Your task to perform on an android device: Search for the best rated 3d printer on Amazon. Image 0: 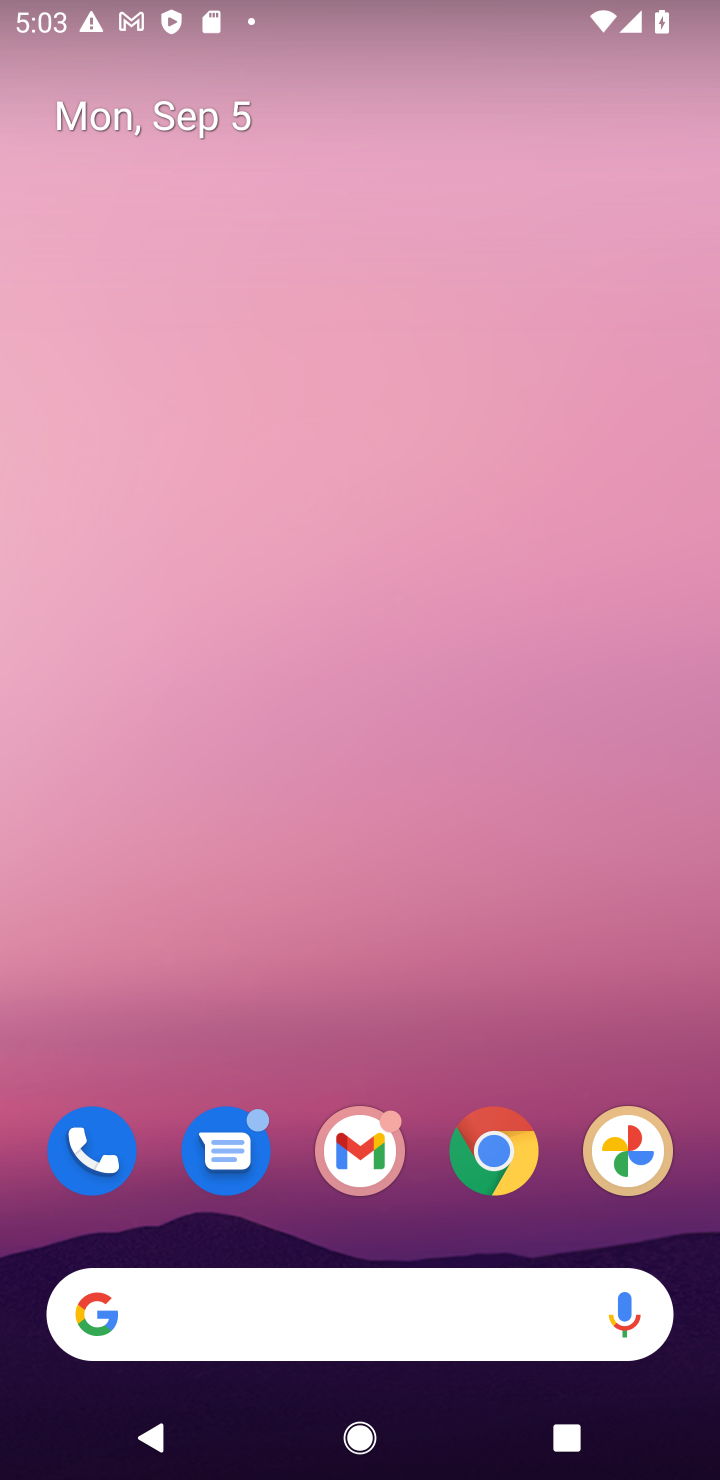
Step 0: drag from (425, 1216) to (537, 158)
Your task to perform on an android device: Search for the best rated 3d printer on Amazon. Image 1: 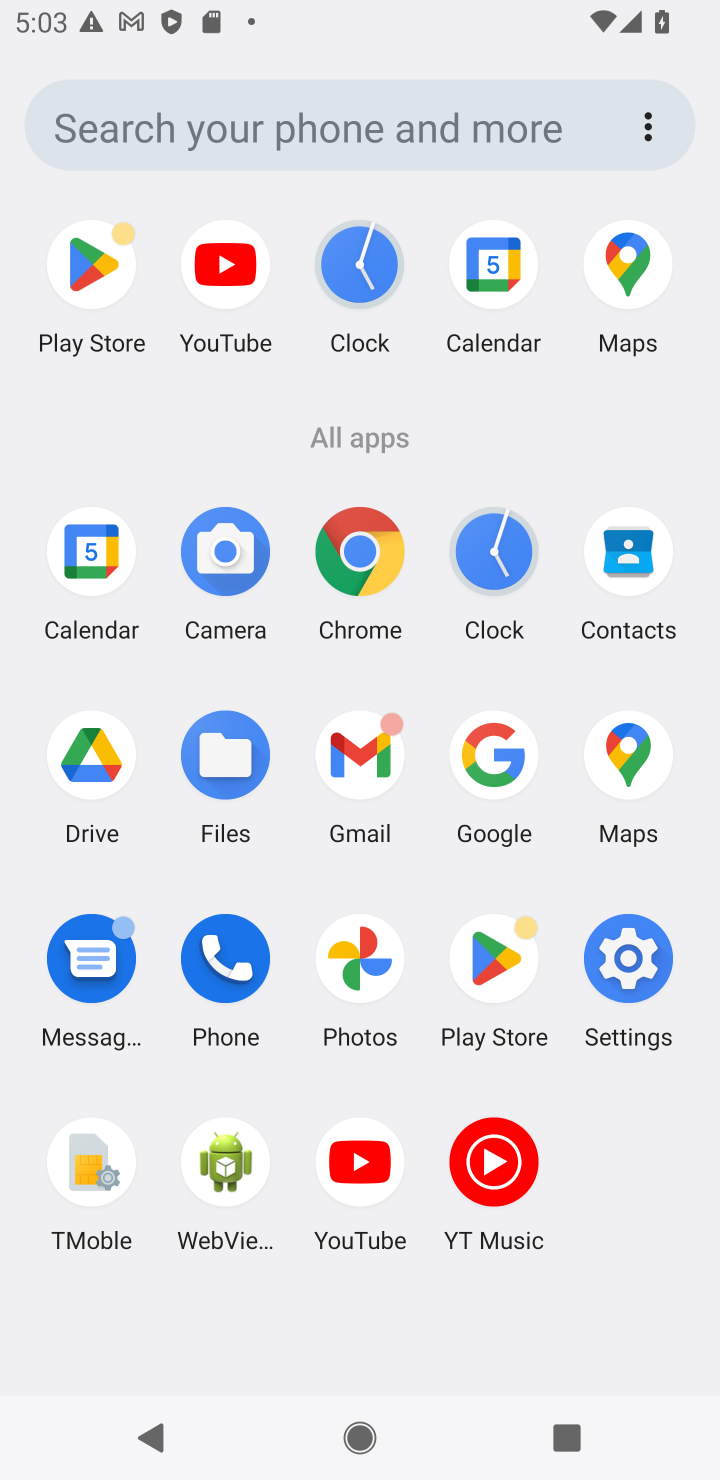
Step 1: click (350, 601)
Your task to perform on an android device: Search for the best rated 3d printer on Amazon. Image 2: 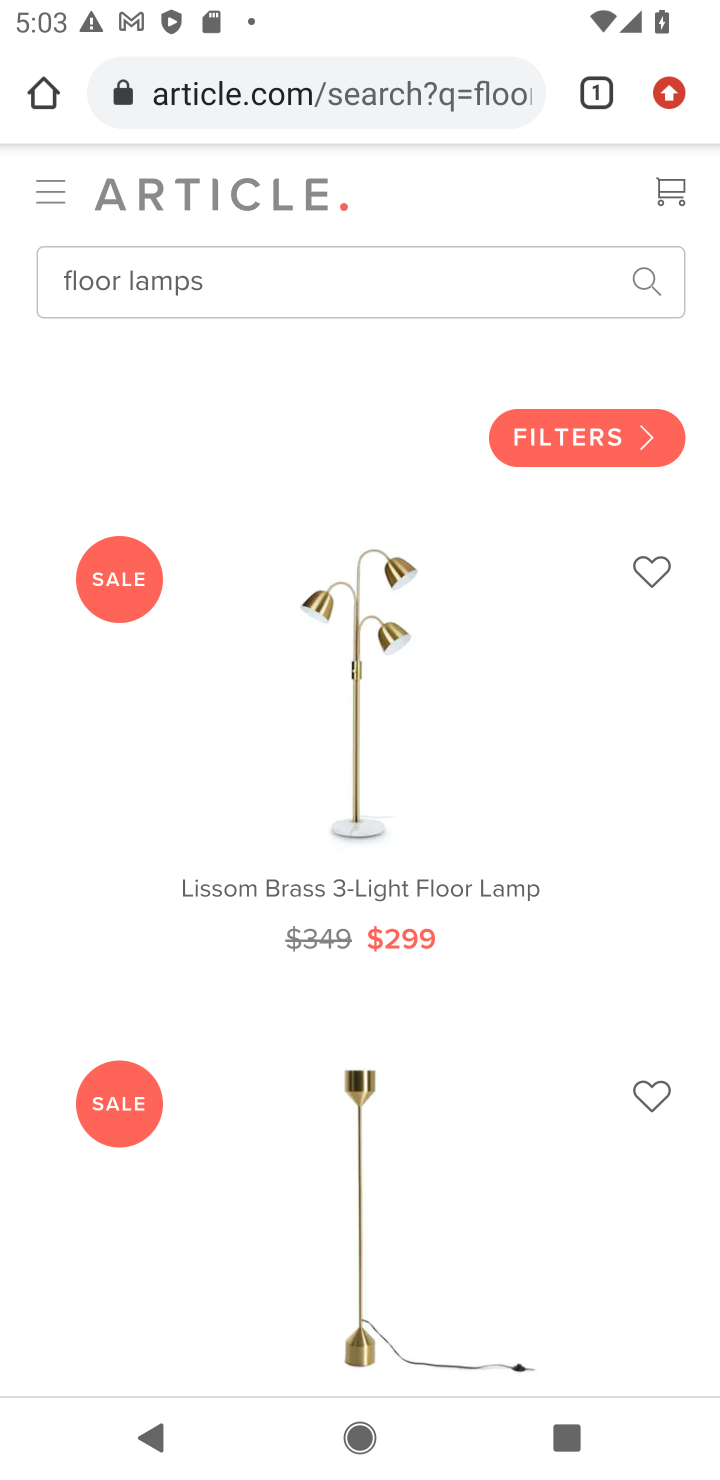
Step 2: click (448, 106)
Your task to perform on an android device: Search for the best rated 3d printer on Amazon. Image 3: 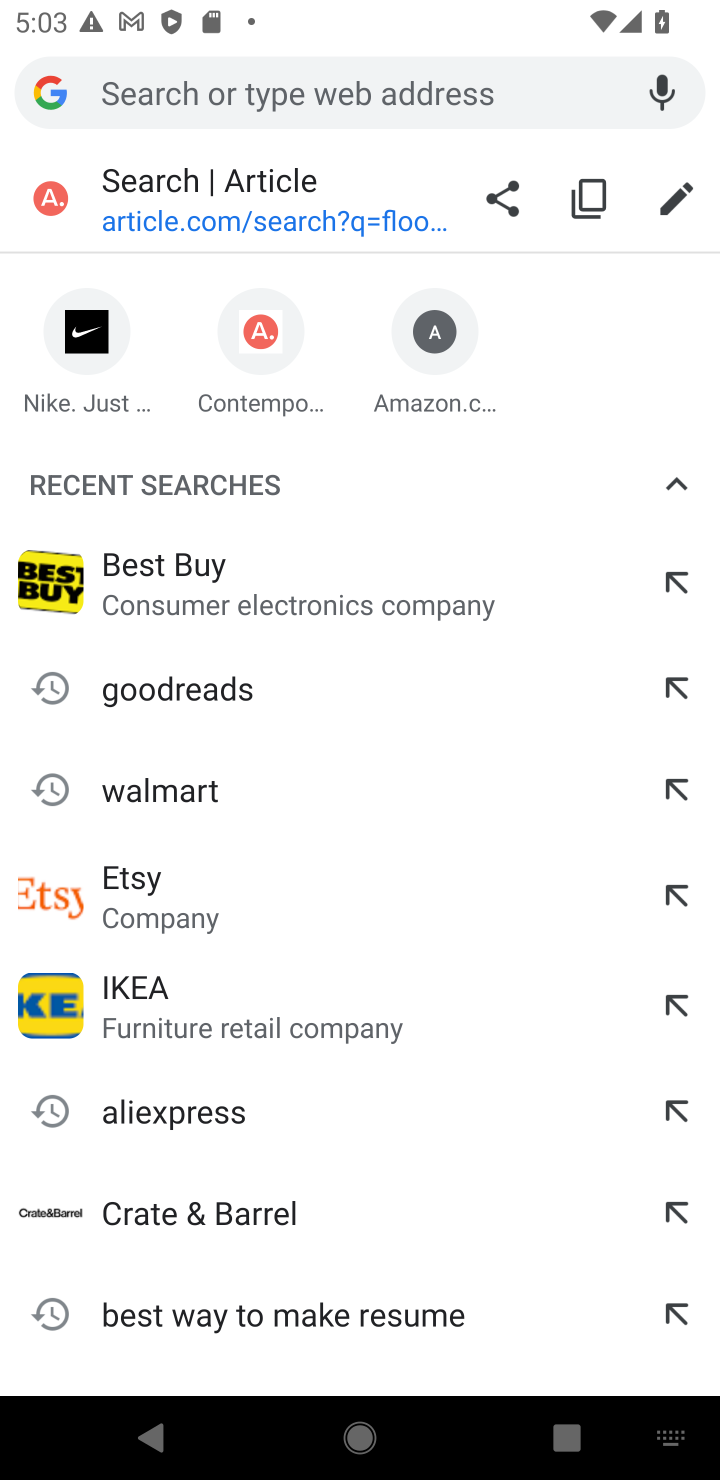
Step 3: type "amazom"
Your task to perform on an android device: Search for the best rated 3d printer on Amazon. Image 4: 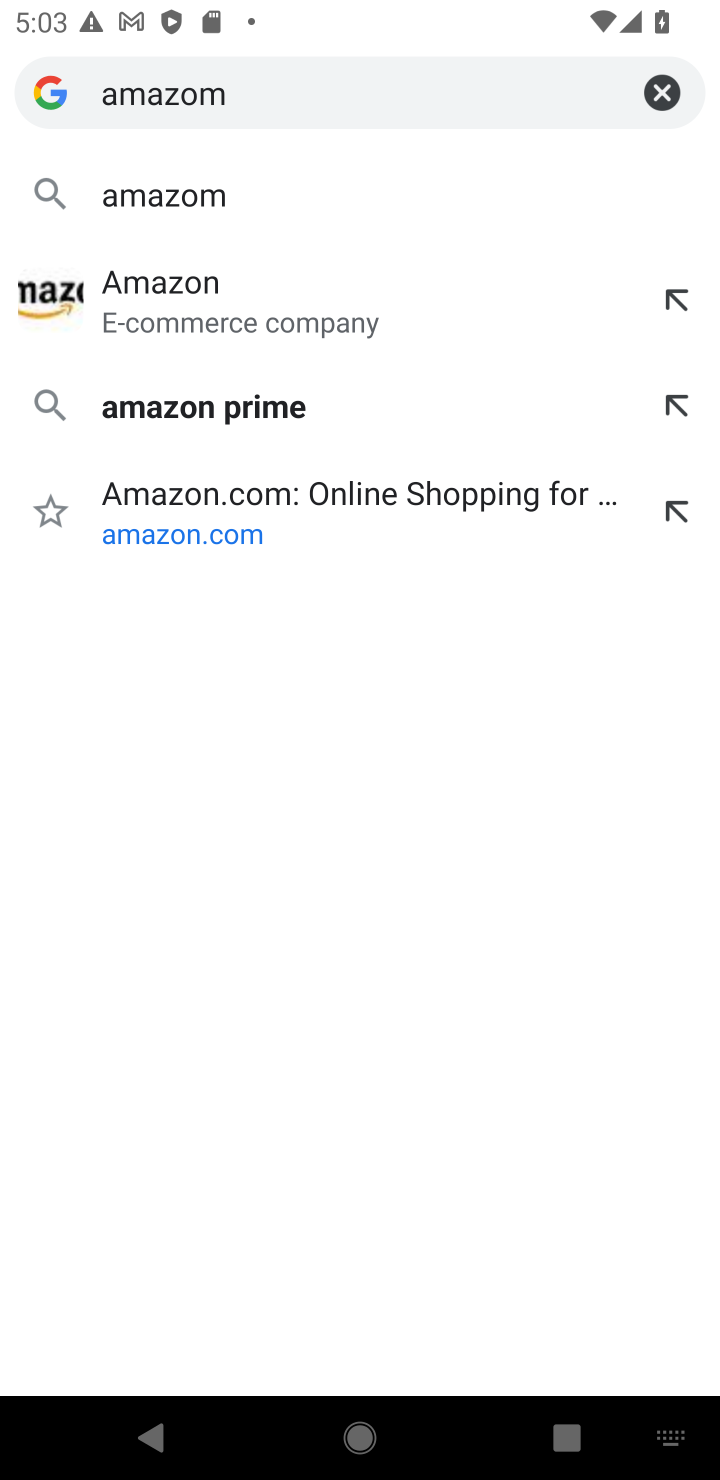
Step 4: click (361, 538)
Your task to perform on an android device: Search for the best rated 3d printer on Amazon. Image 5: 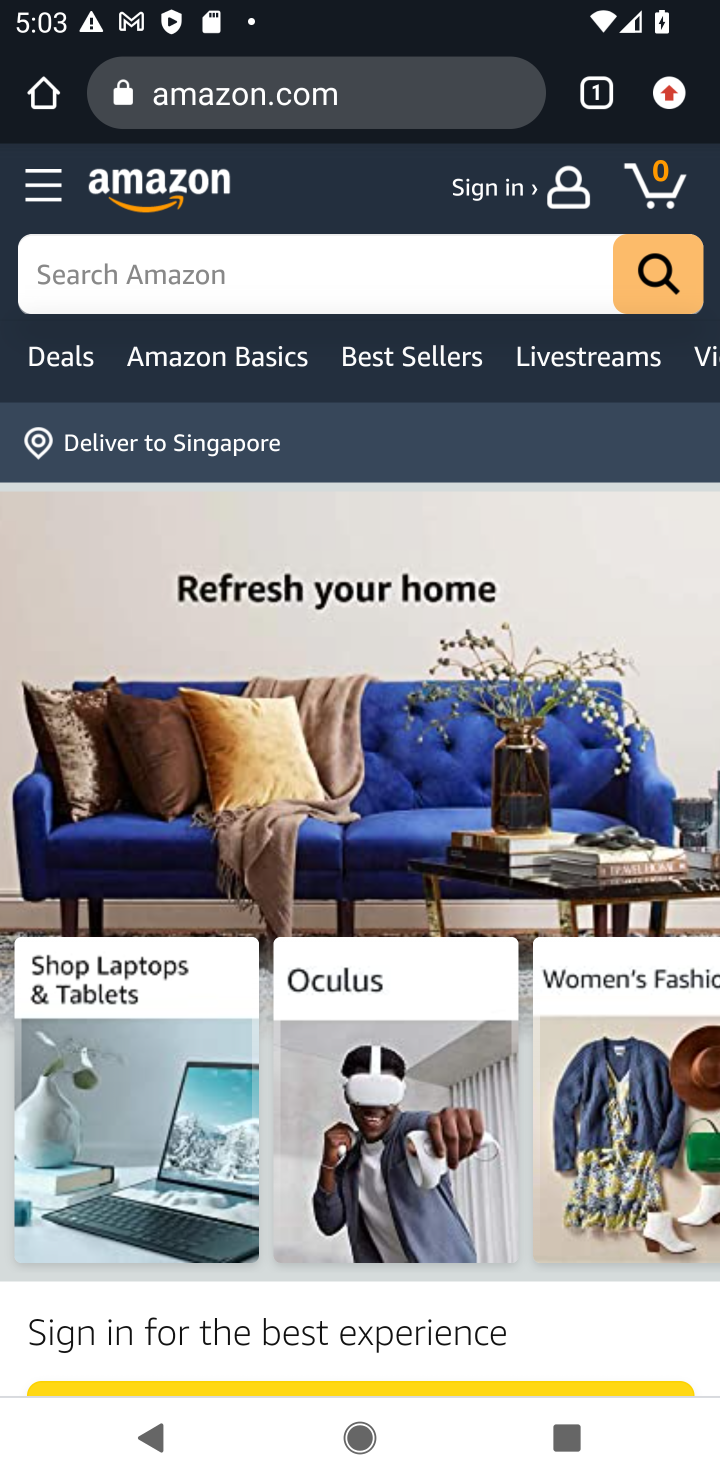
Step 5: click (401, 279)
Your task to perform on an android device: Search for the best rated 3d printer on Amazon. Image 6: 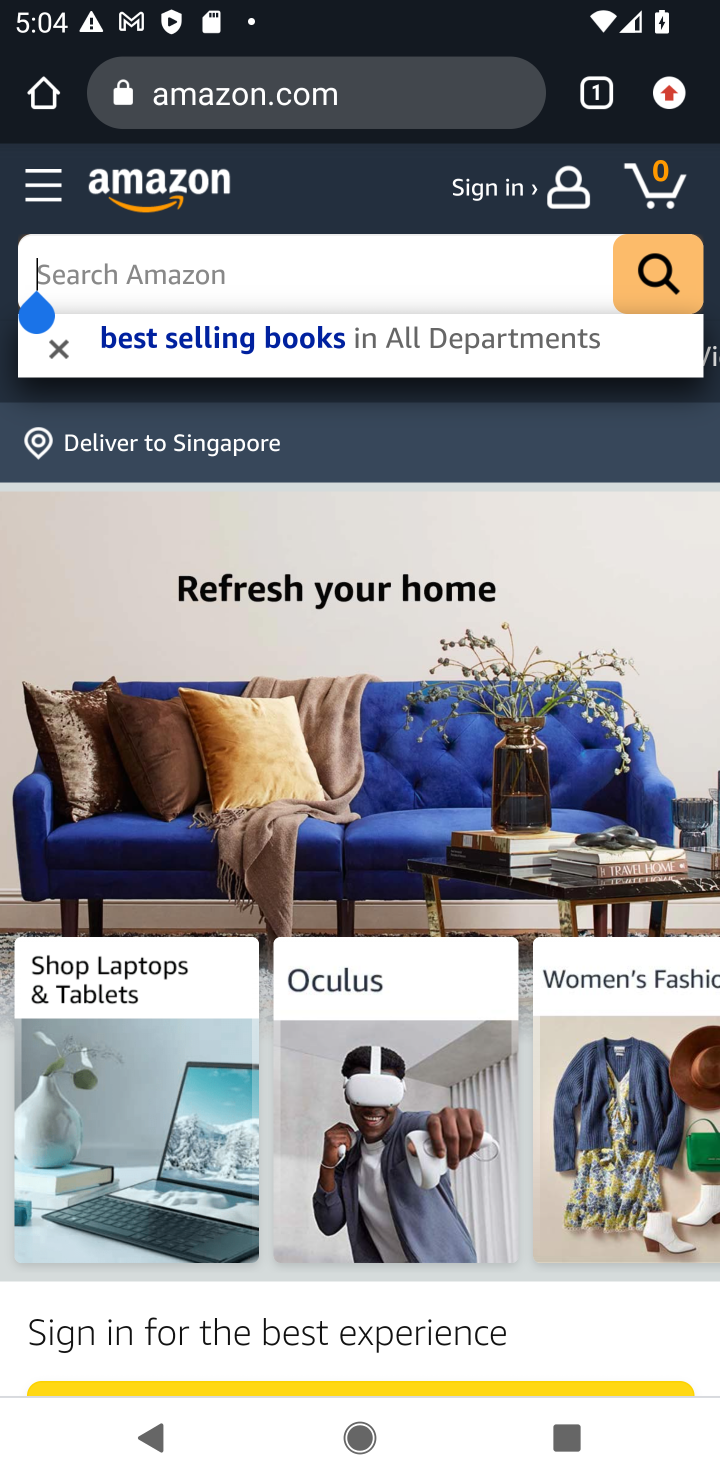
Step 6: type "3d printers"
Your task to perform on an android device: Search for the best rated 3d printer on Amazon. Image 7: 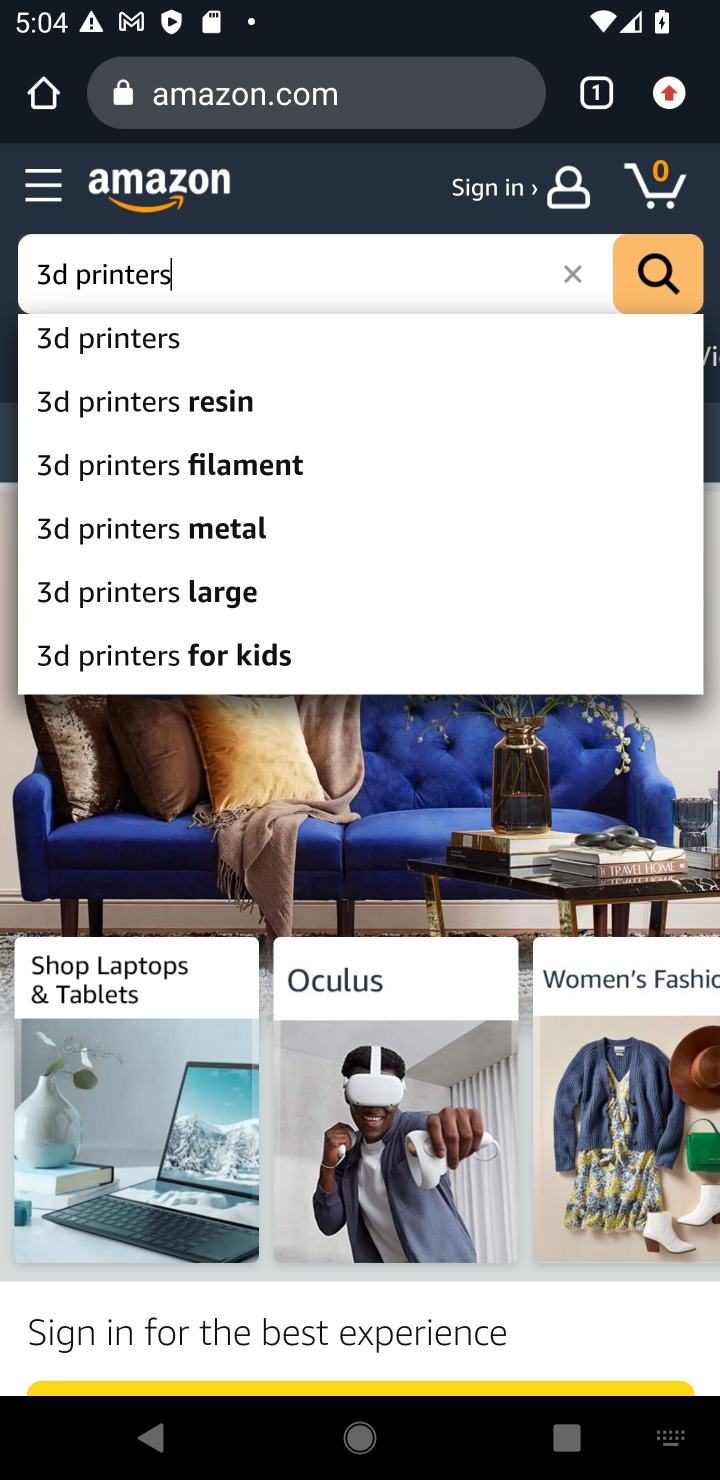
Step 7: click (237, 353)
Your task to perform on an android device: Search for the best rated 3d printer on Amazon. Image 8: 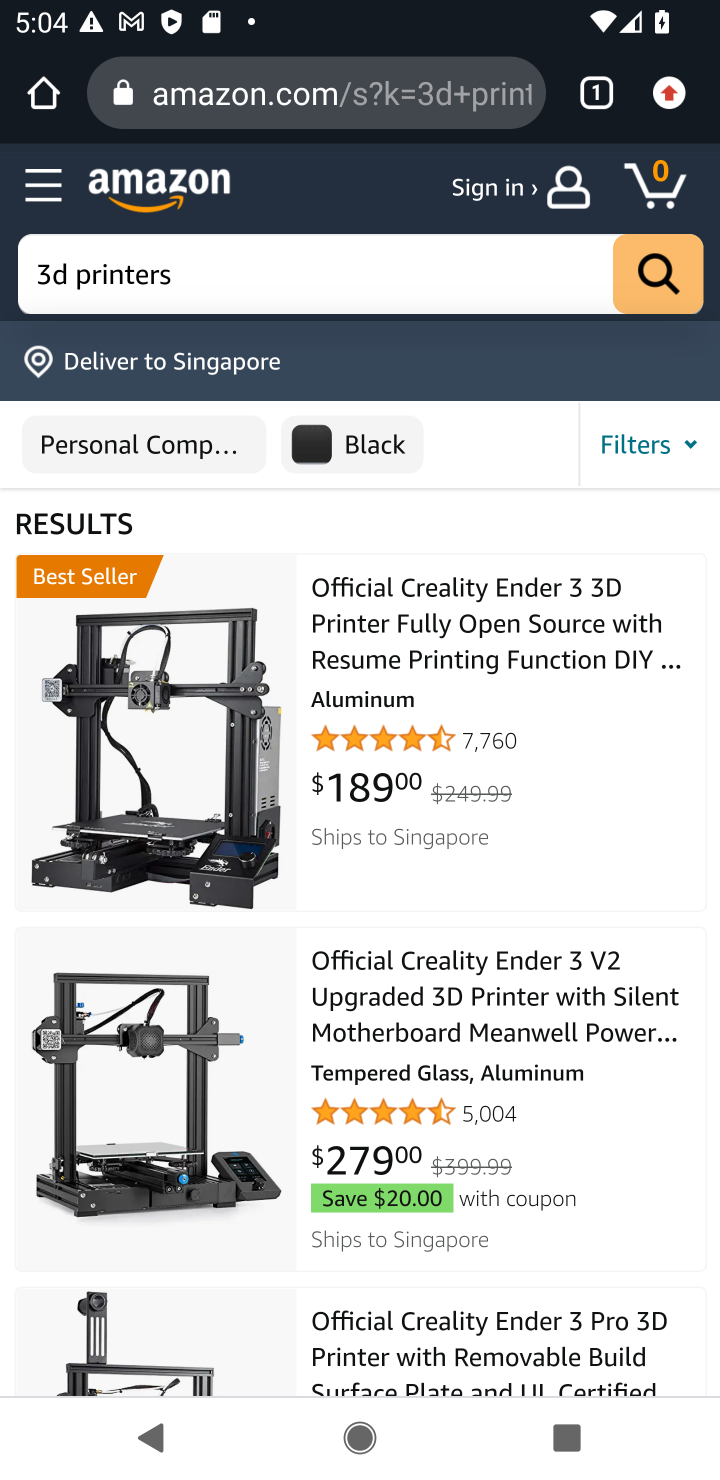
Step 8: task complete